Your task to perform on an android device: Open location settings Image 0: 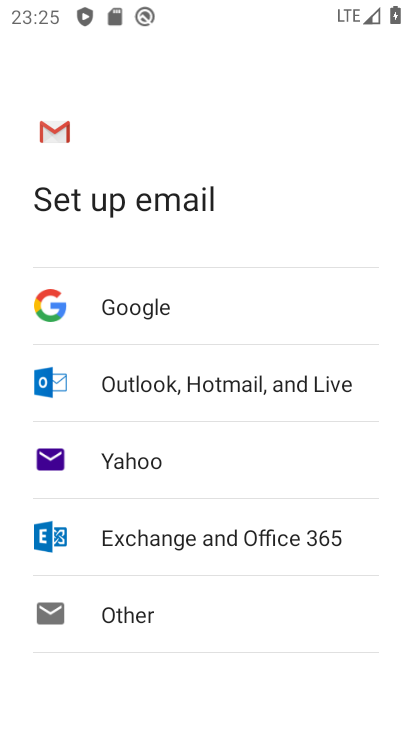
Step 0: press home button
Your task to perform on an android device: Open location settings Image 1: 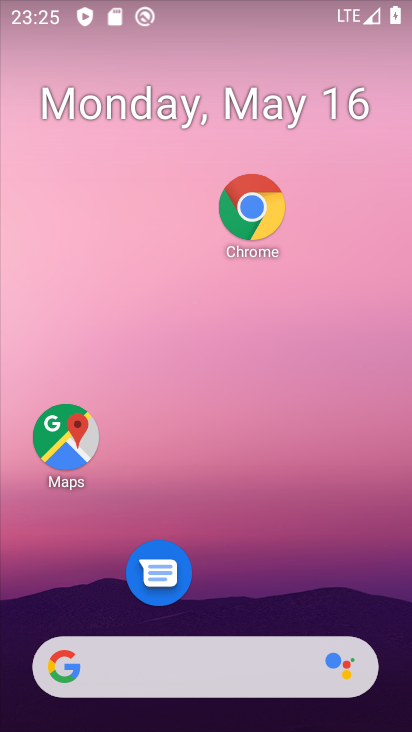
Step 1: drag from (188, 591) to (207, 24)
Your task to perform on an android device: Open location settings Image 2: 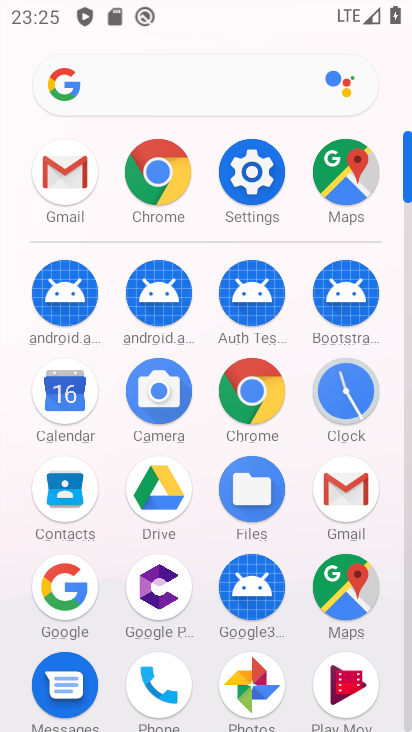
Step 2: click (234, 170)
Your task to perform on an android device: Open location settings Image 3: 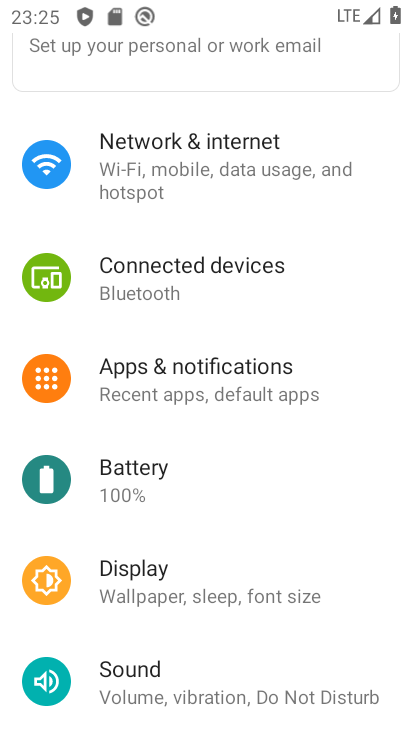
Step 3: drag from (249, 657) to (252, 148)
Your task to perform on an android device: Open location settings Image 4: 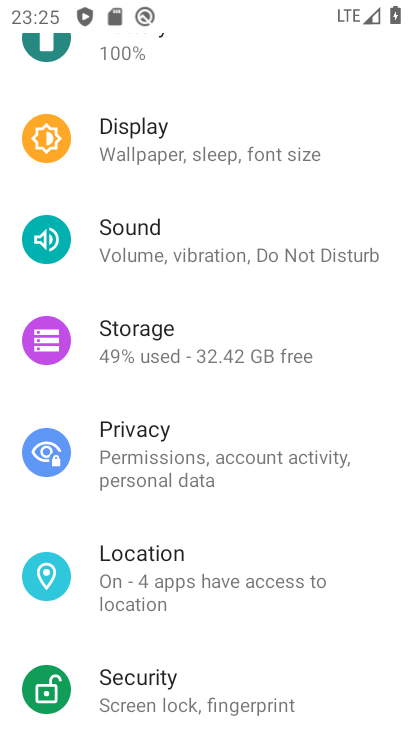
Step 4: click (194, 564)
Your task to perform on an android device: Open location settings Image 5: 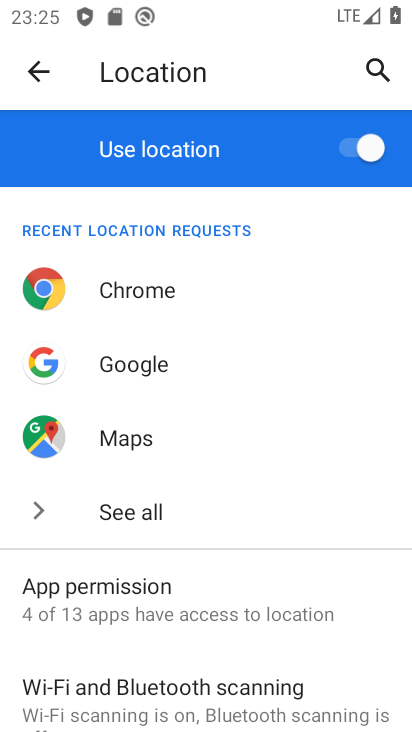
Step 5: task complete